Your task to perform on an android device: turn on airplane mode Image 0: 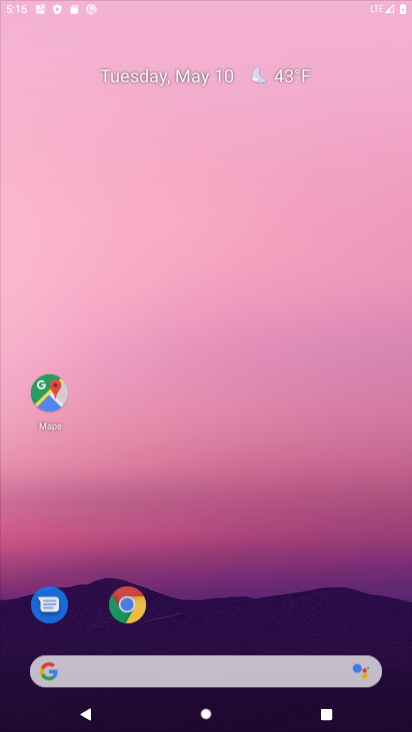
Step 0: drag from (282, 173) to (299, 57)
Your task to perform on an android device: turn on airplane mode Image 1: 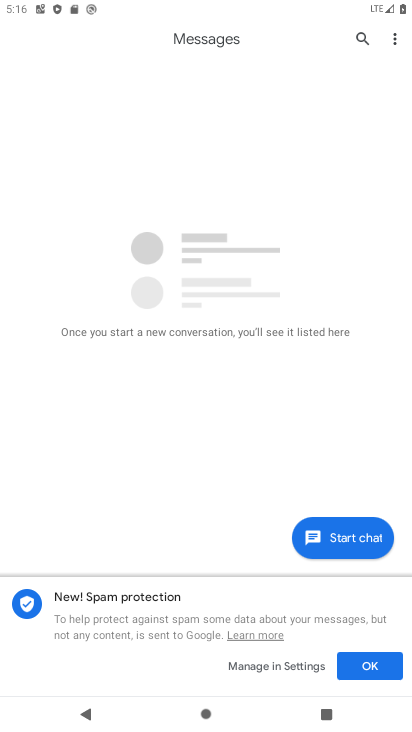
Step 1: press back button
Your task to perform on an android device: turn on airplane mode Image 2: 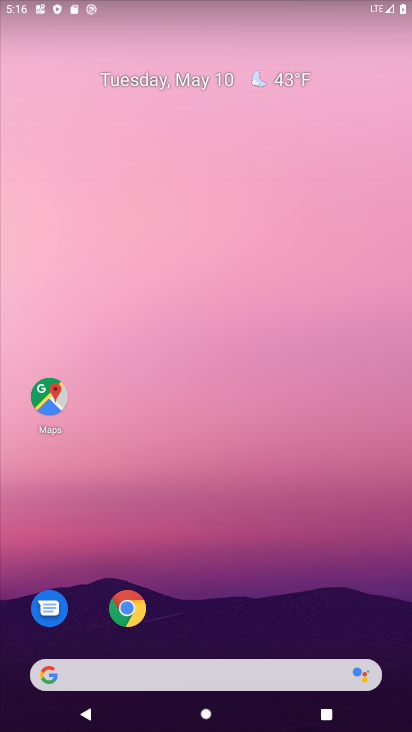
Step 2: drag from (258, 12) to (242, 608)
Your task to perform on an android device: turn on airplane mode Image 3: 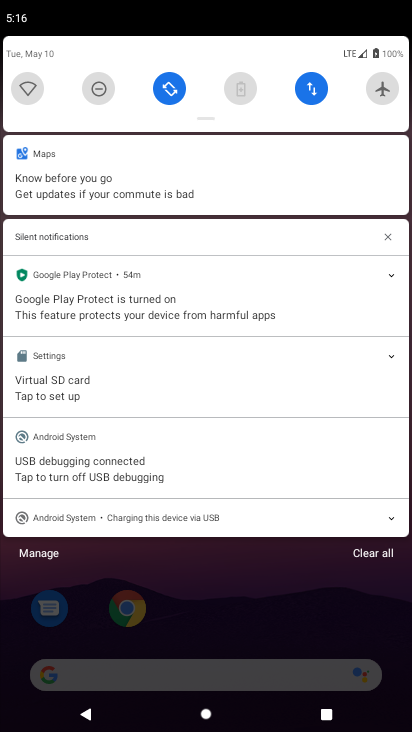
Step 3: click (377, 89)
Your task to perform on an android device: turn on airplane mode Image 4: 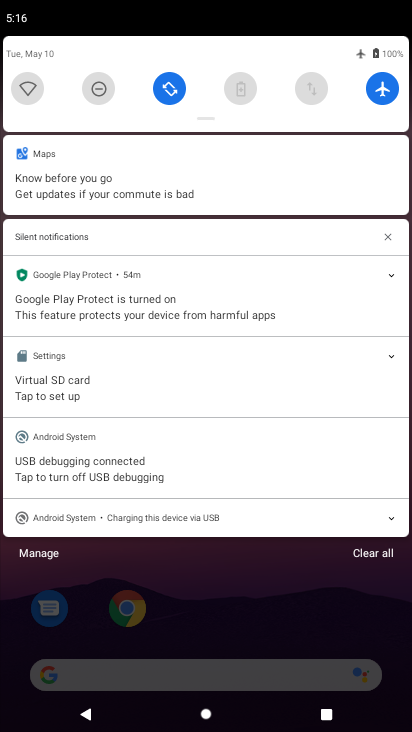
Step 4: task complete